Your task to perform on an android device: turn on the 24-hour format for clock Image 0: 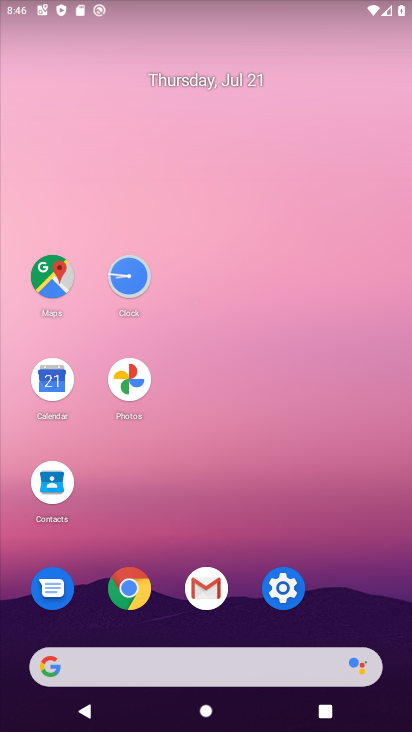
Step 0: click (127, 276)
Your task to perform on an android device: turn on the 24-hour format for clock Image 1: 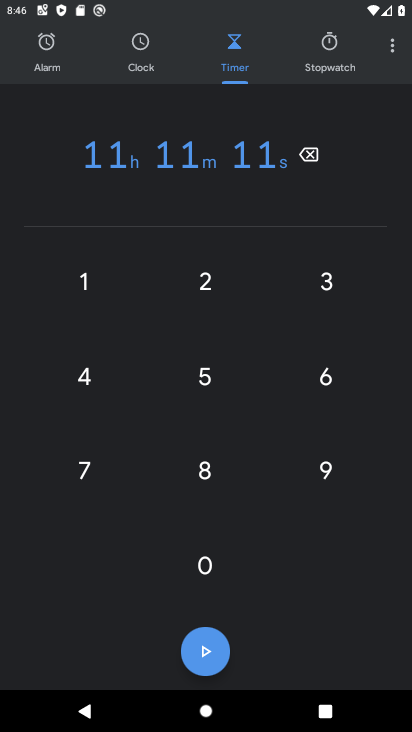
Step 1: click (391, 47)
Your task to perform on an android device: turn on the 24-hour format for clock Image 2: 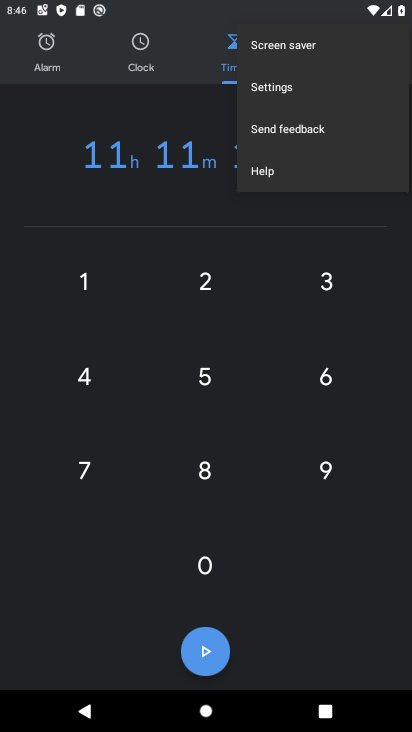
Step 2: click (268, 88)
Your task to perform on an android device: turn on the 24-hour format for clock Image 3: 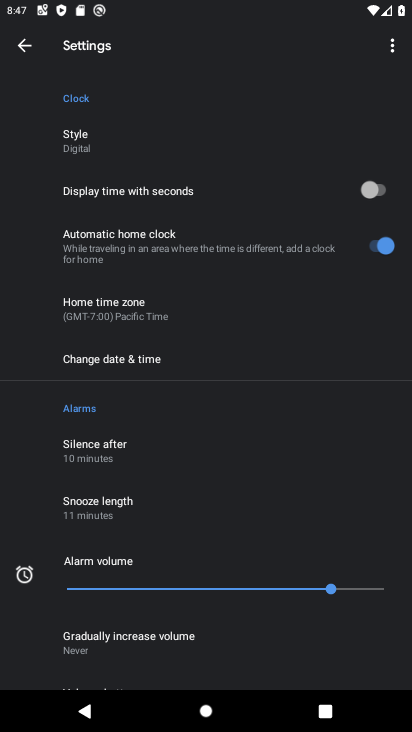
Step 3: click (118, 359)
Your task to perform on an android device: turn on the 24-hour format for clock Image 4: 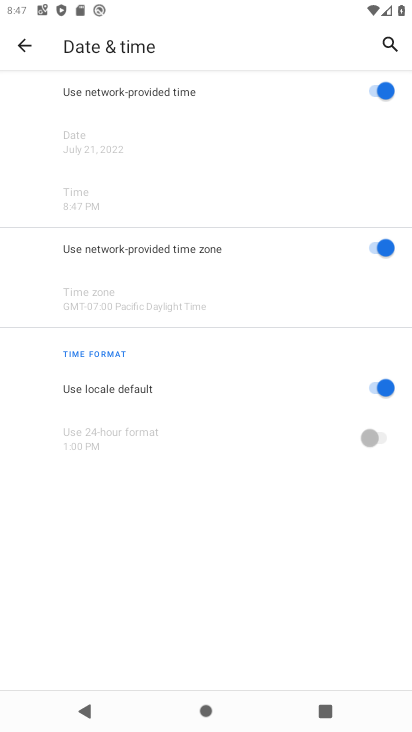
Step 4: click (381, 393)
Your task to perform on an android device: turn on the 24-hour format for clock Image 5: 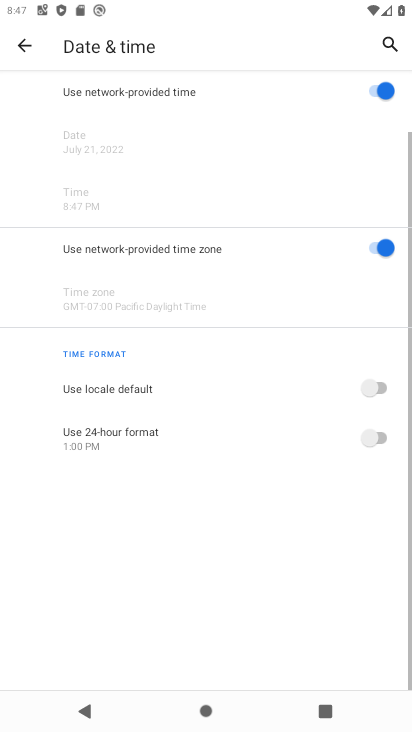
Step 5: click (374, 435)
Your task to perform on an android device: turn on the 24-hour format for clock Image 6: 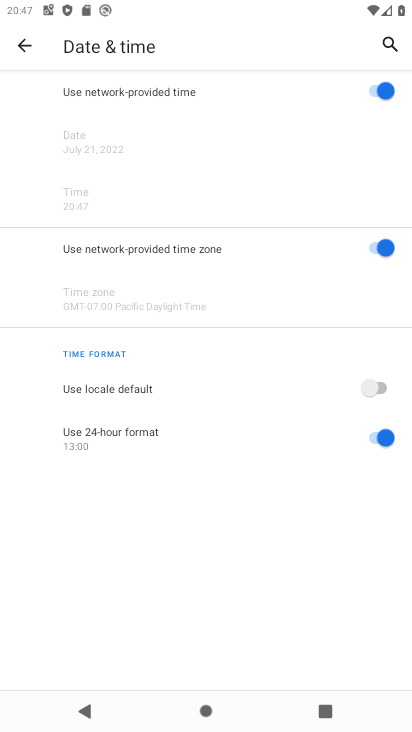
Step 6: task complete